Your task to perform on an android device: turn off notifications settings in the gmail app Image 0: 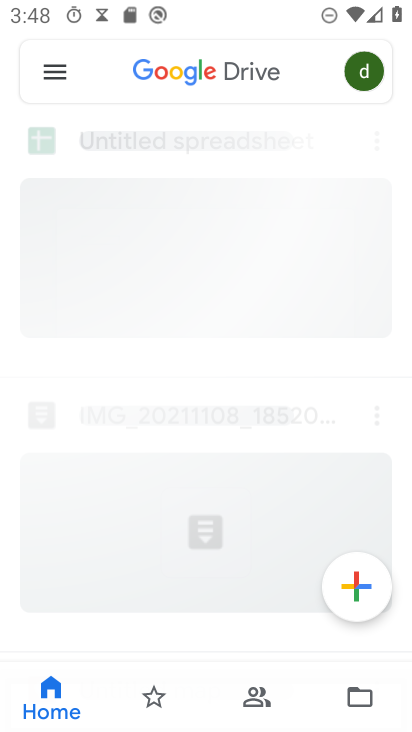
Step 0: drag from (241, 660) to (259, 412)
Your task to perform on an android device: turn off notifications settings in the gmail app Image 1: 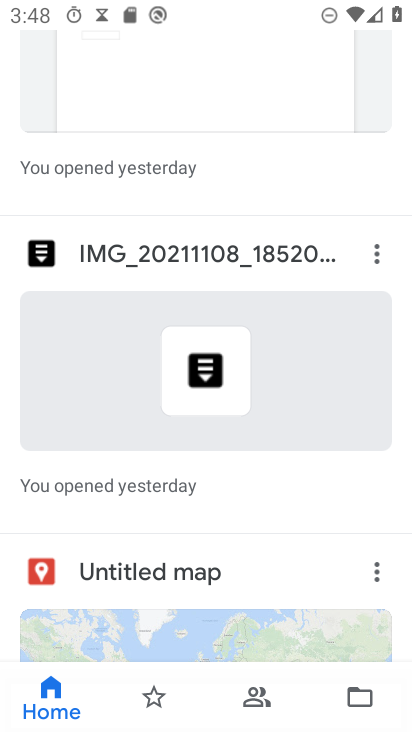
Step 1: press back button
Your task to perform on an android device: turn off notifications settings in the gmail app Image 2: 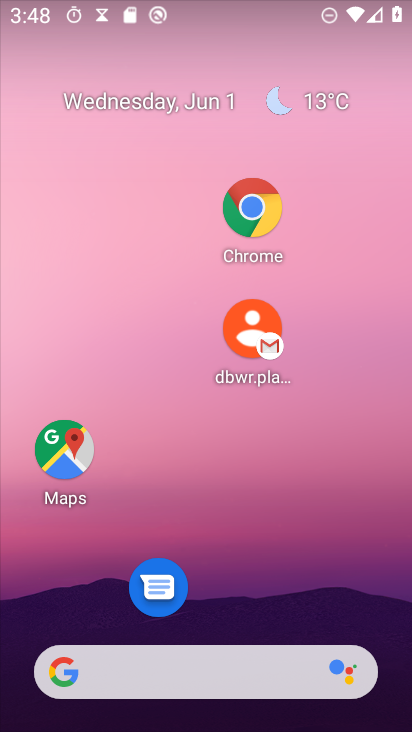
Step 2: drag from (329, 510) to (330, 263)
Your task to perform on an android device: turn off notifications settings in the gmail app Image 3: 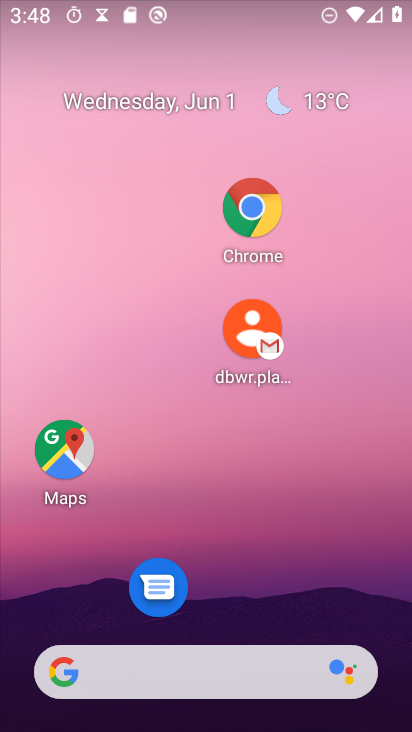
Step 3: drag from (257, 597) to (200, 171)
Your task to perform on an android device: turn off notifications settings in the gmail app Image 4: 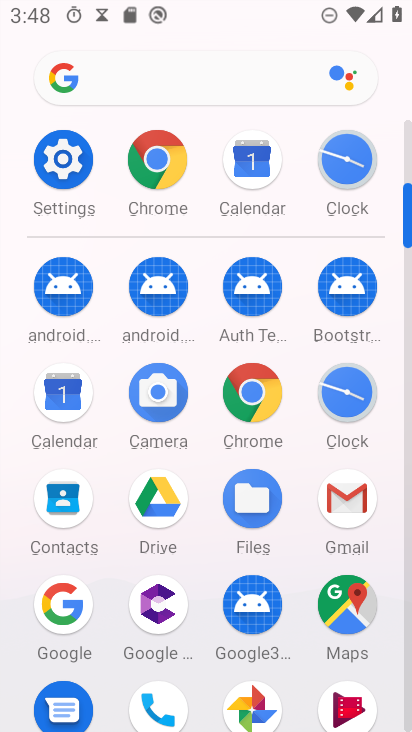
Step 4: click (76, 142)
Your task to perform on an android device: turn off notifications settings in the gmail app Image 5: 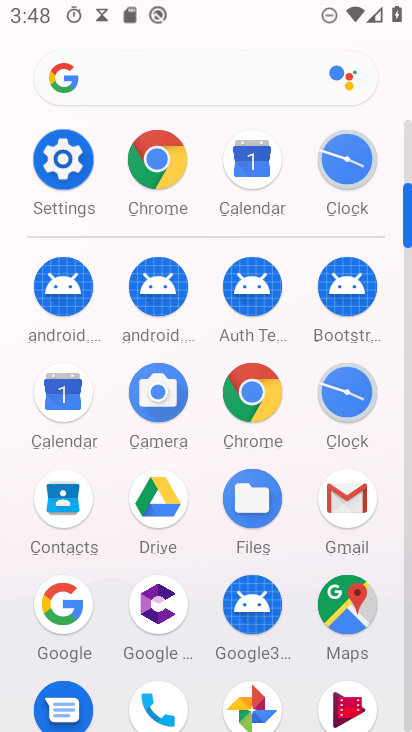
Step 5: click (76, 142)
Your task to perform on an android device: turn off notifications settings in the gmail app Image 6: 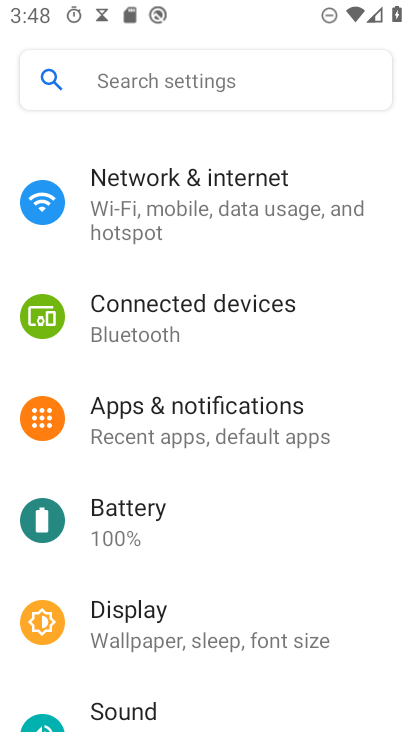
Step 6: click (80, 143)
Your task to perform on an android device: turn off notifications settings in the gmail app Image 7: 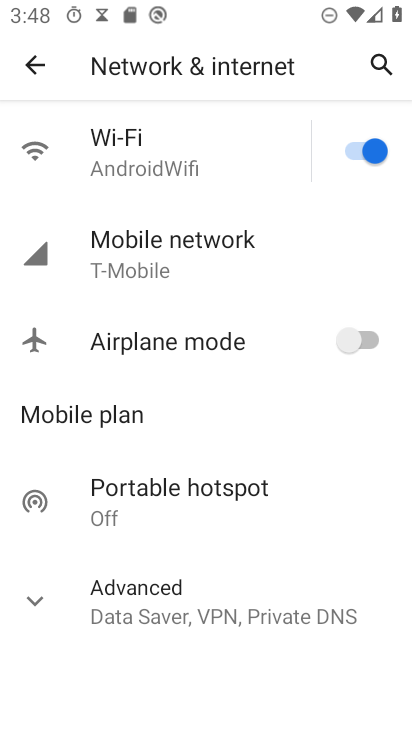
Step 7: click (26, 71)
Your task to perform on an android device: turn off notifications settings in the gmail app Image 8: 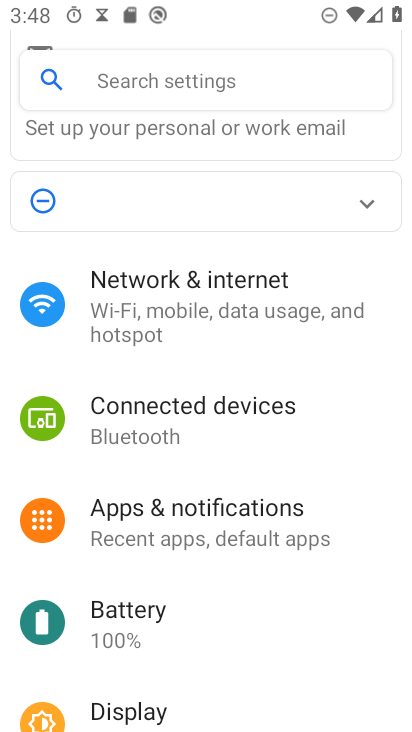
Step 8: click (202, 511)
Your task to perform on an android device: turn off notifications settings in the gmail app Image 9: 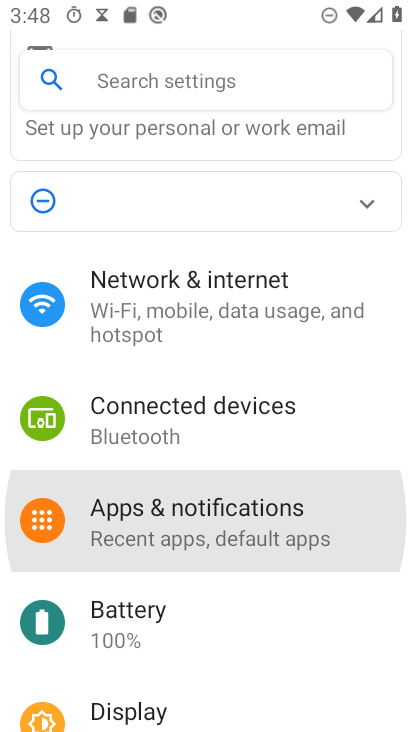
Step 9: click (202, 511)
Your task to perform on an android device: turn off notifications settings in the gmail app Image 10: 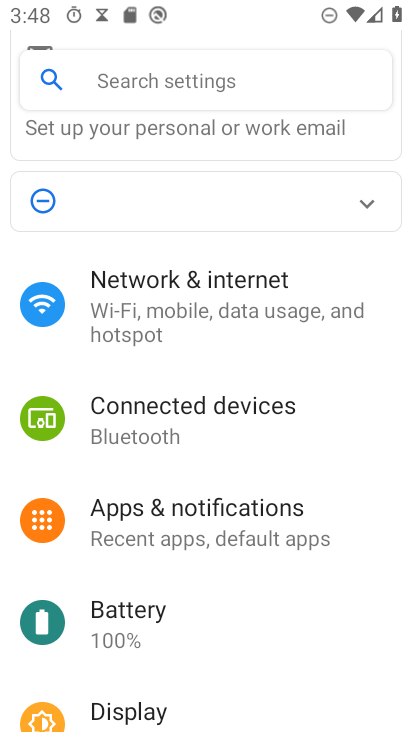
Step 10: click (202, 511)
Your task to perform on an android device: turn off notifications settings in the gmail app Image 11: 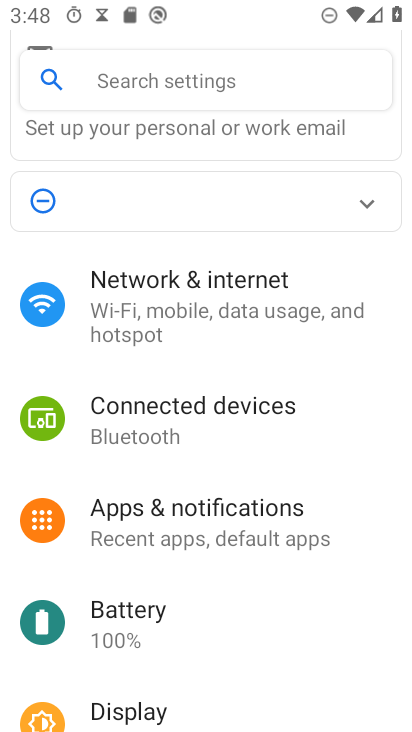
Step 11: click (202, 511)
Your task to perform on an android device: turn off notifications settings in the gmail app Image 12: 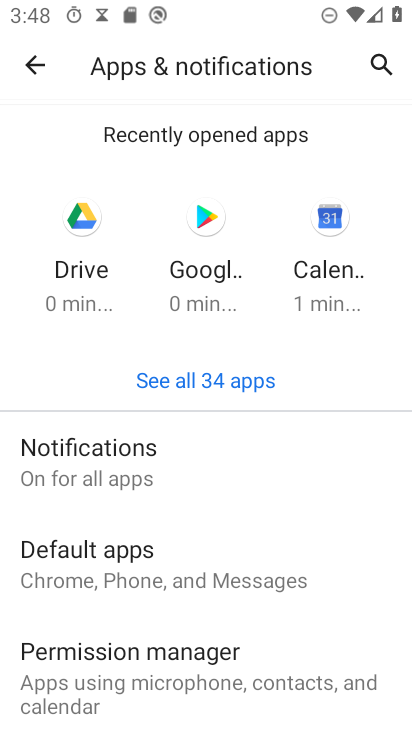
Step 12: click (65, 452)
Your task to perform on an android device: turn off notifications settings in the gmail app Image 13: 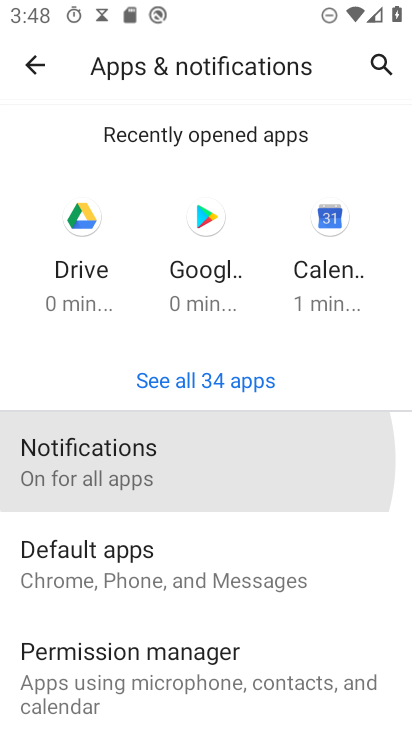
Step 13: click (65, 452)
Your task to perform on an android device: turn off notifications settings in the gmail app Image 14: 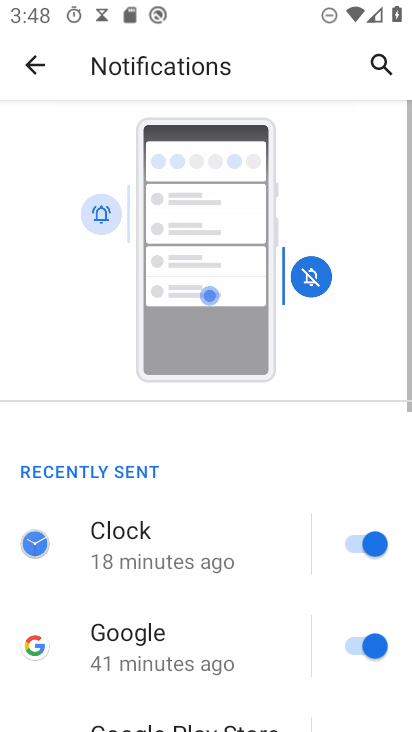
Step 14: drag from (145, 489) to (133, 160)
Your task to perform on an android device: turn off notifications settings in the gmail app Image 15: 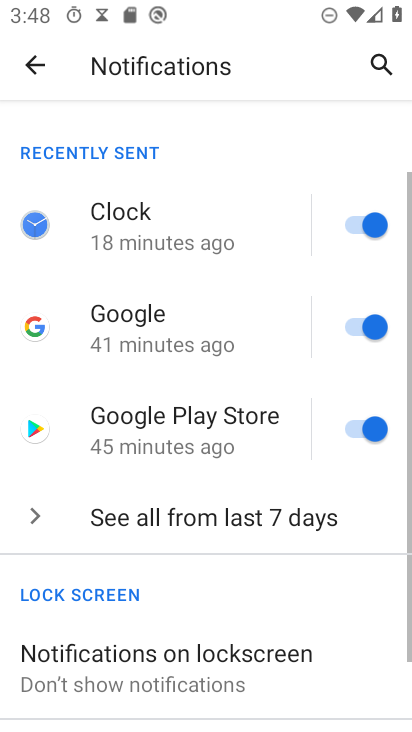
Step 15: drag from (202, 500) to (197, 148)
Your task to perform on an android device: turn off notifications settings in the gmail app Image 16: 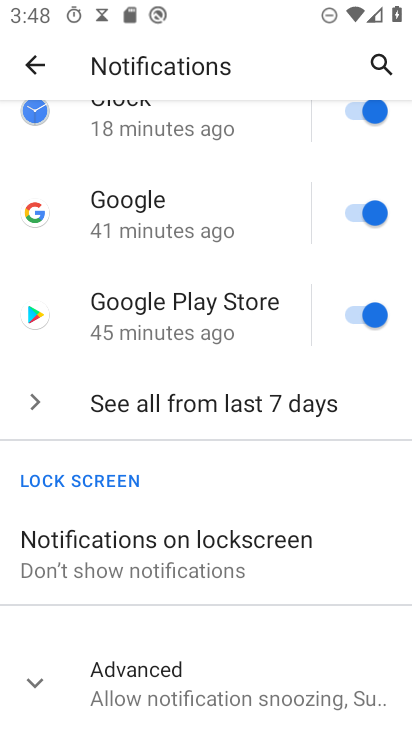
Step 16: click (368, 308)
Your task to perform on an android device: turn off notifications settings in the gmail app Image 17: 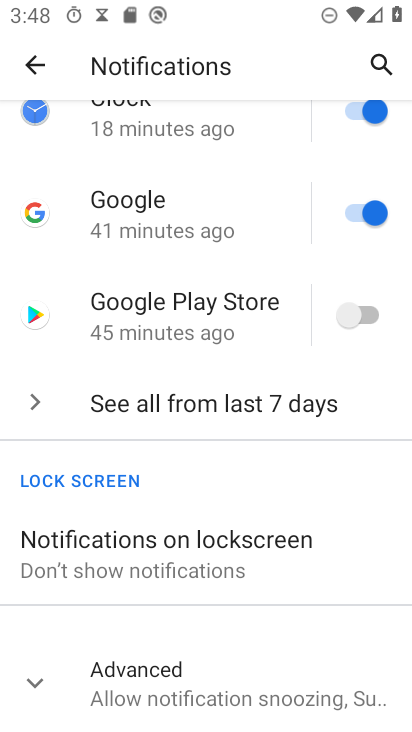
Step 17: click (373, 204)
Your task to perform on an android device: turn off notifications settings in the gmail app Image 18: 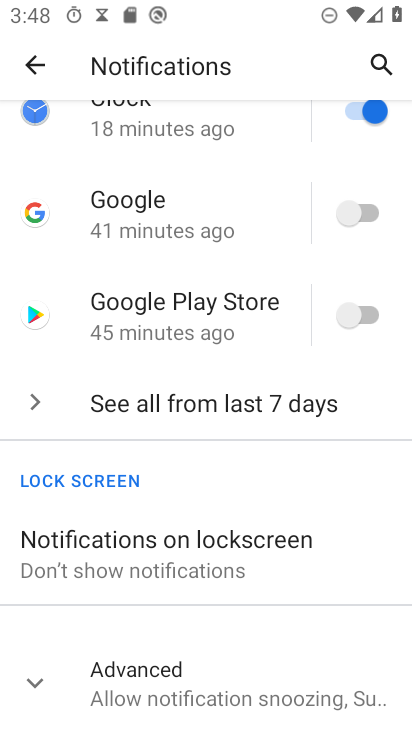
Step 18: click (372, 114)
Your task to perform on an android device: turn off notifications settings in the gmail app Image 19: 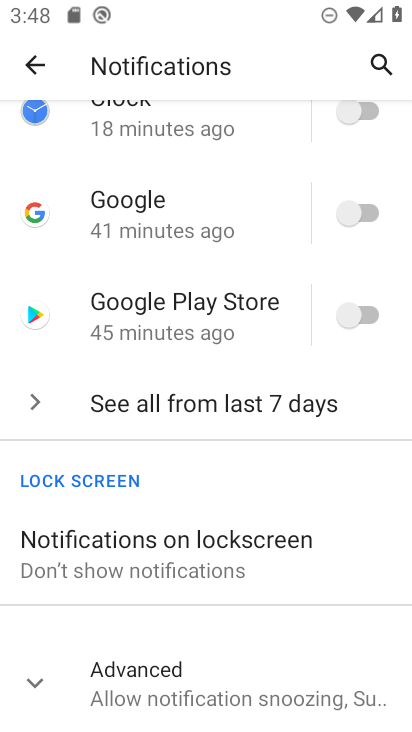
Step 19: task complete